Your task to perform on an android device: Open the calendar app, open the side menu, and click the "Day" option Image 0: 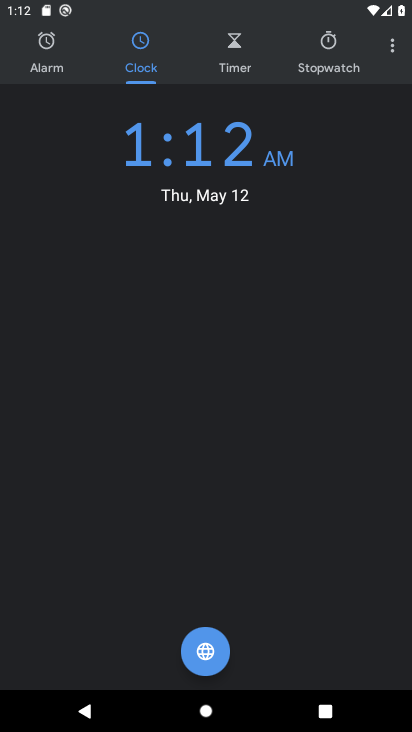
Step 0: press home button
Your task to perform on an android device: Open the calendar app, open the side menu, and click the "Day" option Image 1: 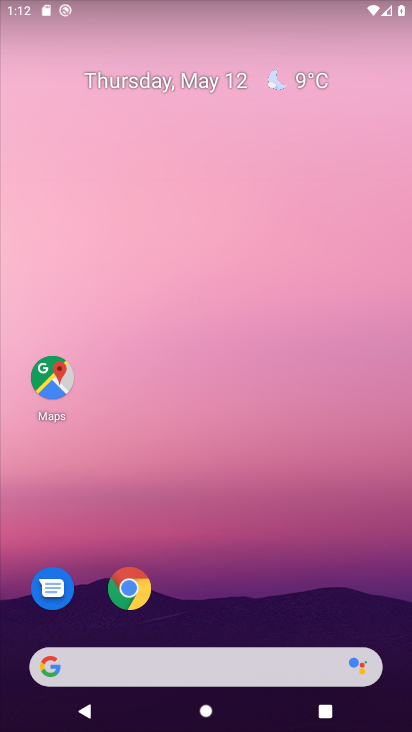
Step 1: drag from (310, 551) to (314, 54)
Your task to perform on an android device: Open the calendar app, open the side menu, and click the "Day" option Image 2: 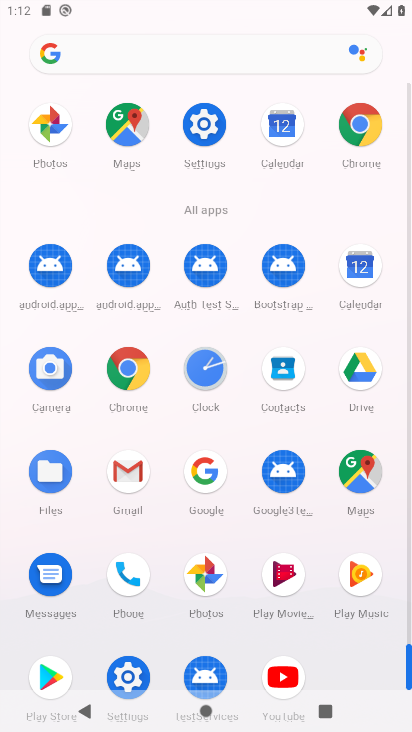
Step 2: click (357, 282)
Your task to perform on an android device: Open the calendar app, open the side menu, and click the "Day" option Image 3: 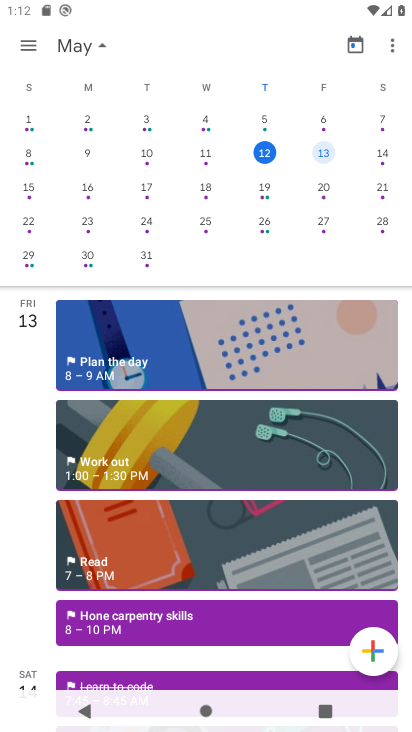
Step 3: click (10, 43)
Your task to perform on an android device: Open the calendar app, open the side menu, and click the "Day" option Image 4: 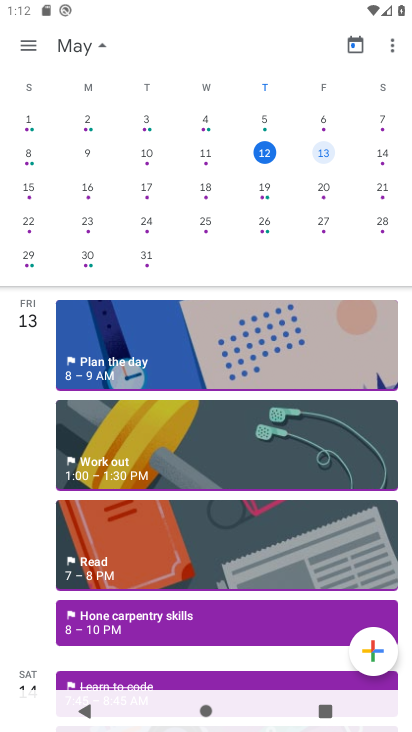
Step 4: click (24, 49)
Your task to perform on an android device: Open the calendar app, open the side menu, and click the "Day" option Image 5: 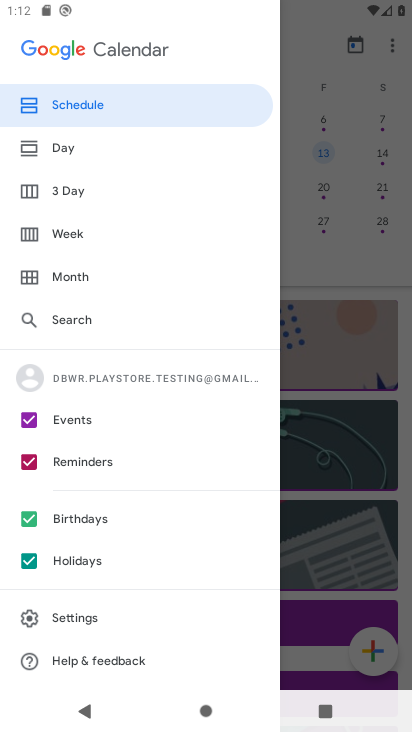
Step 5: click (70, 159)
Your task to perform on an android device: Open the calendar app, open the side menu, and click the "Day" option Image 6: 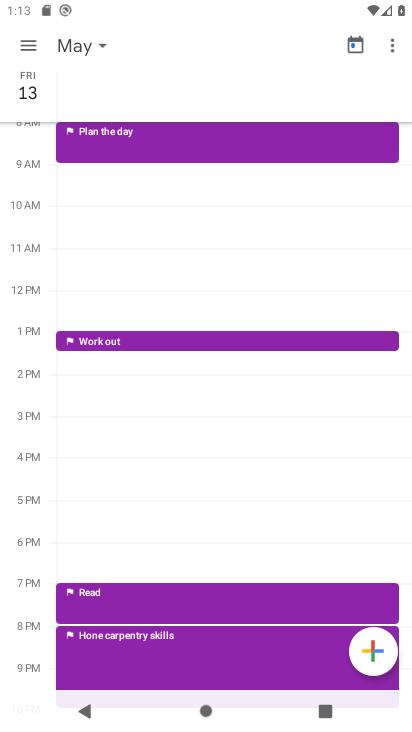
Step 6: task complete